Your task to perform on an android device: Go to Android settings Image 0: 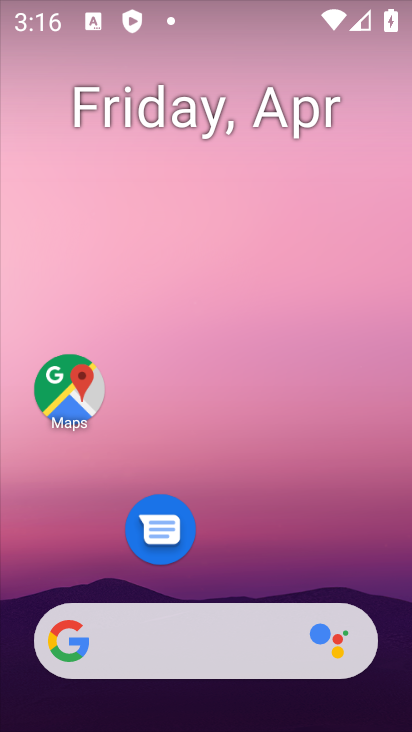
Step 0: drag from (259, 522) to (293, 283)
Your task to perform on an android device: Go to Android settings Image 1: 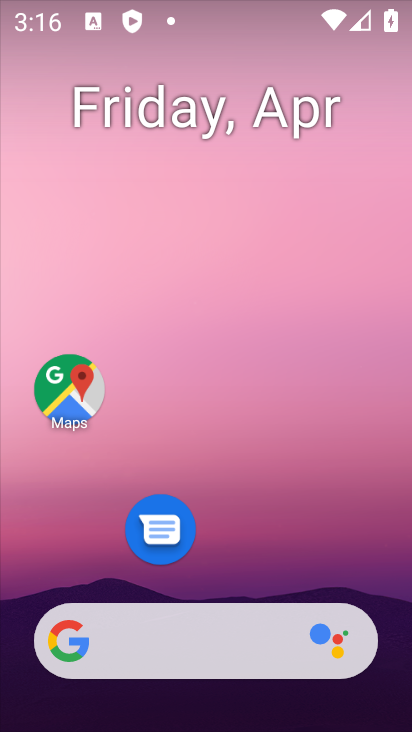
Step 1: drag from (255, 561) to (308, 189)
Your task to perform on an android device: Go to Android settings Image 2: 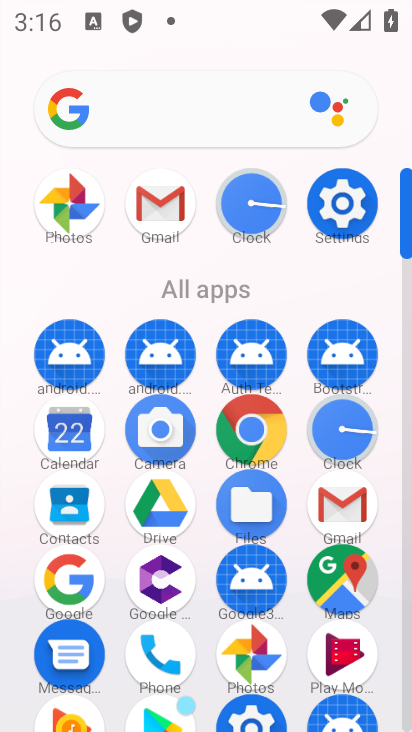
Step 2: click (344, 221)
Your task to perform on an android device: Go to Android settings Image 3: 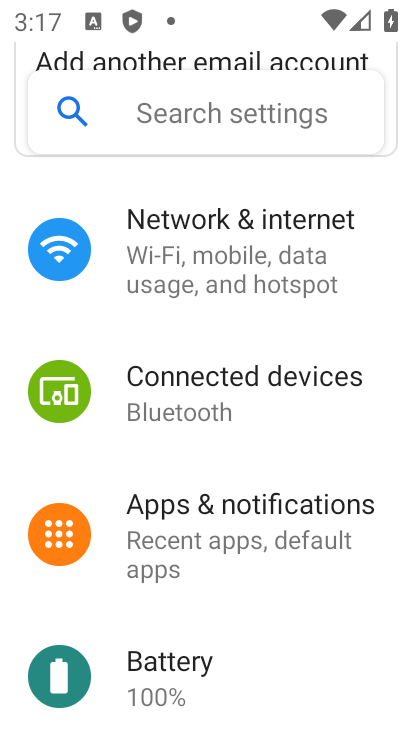
Step 3: drag from (231, 601) to (318, 213)
Your task to perform on an android device: Go to Android settings Image 4: 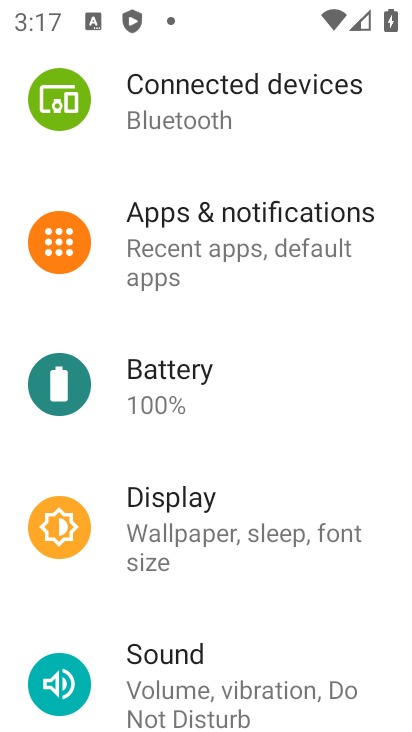
Step 4: drag from (243, 438) to (300, 249)
Your task to perform on an android device: Go to Android settings Image 5: 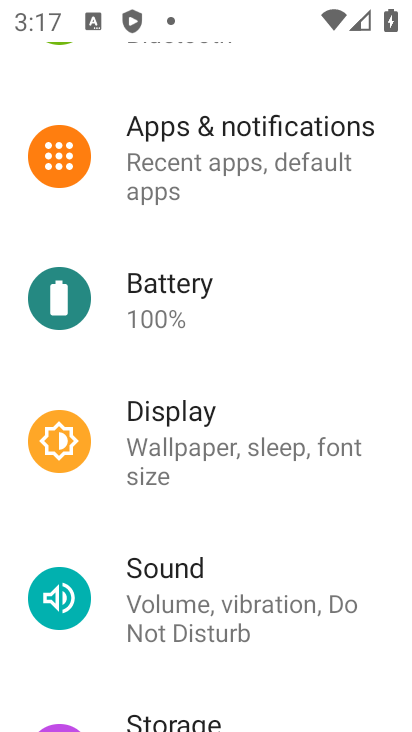
Step 5: drag from (192, 530) to (290, 194)
Your task to perform on an android device: Go to Android settings Image 6: 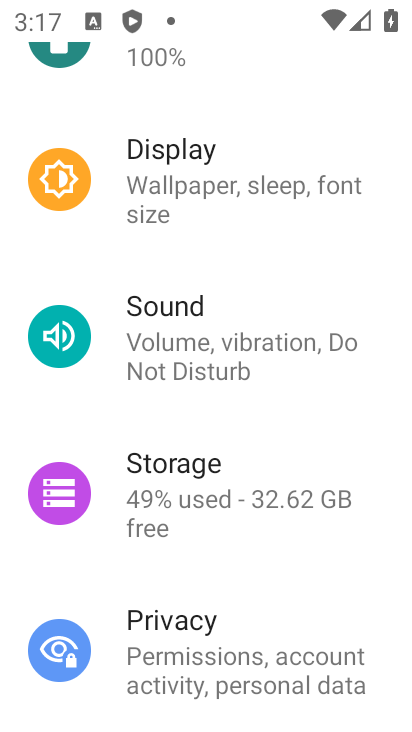
Step 6: drag from (192, 503) to (306, 104)
Your task to perform on an android device: Go to Android settings Image 7: 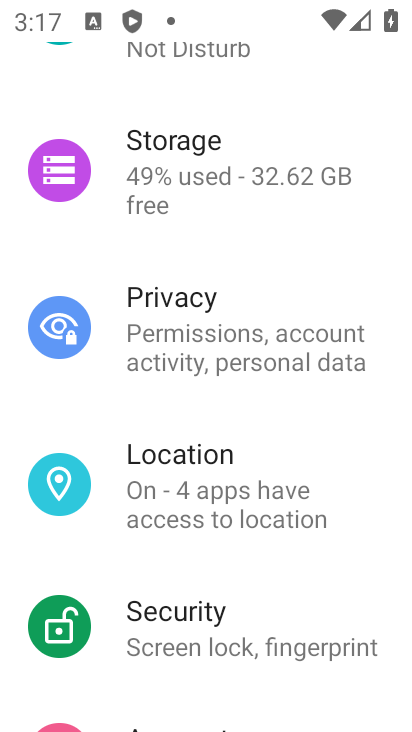
Step 7: drag from (222, 557) to (319, 187)
Your task to perform on an android device: Go to Android settings Image 8: 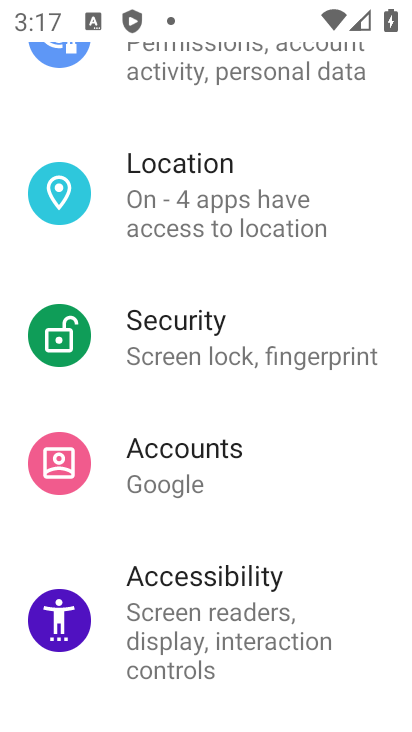
Step 8: drag from (251, 589) to (352, 173)
Your task to perform on an android device: Go to Android settings Image 9: 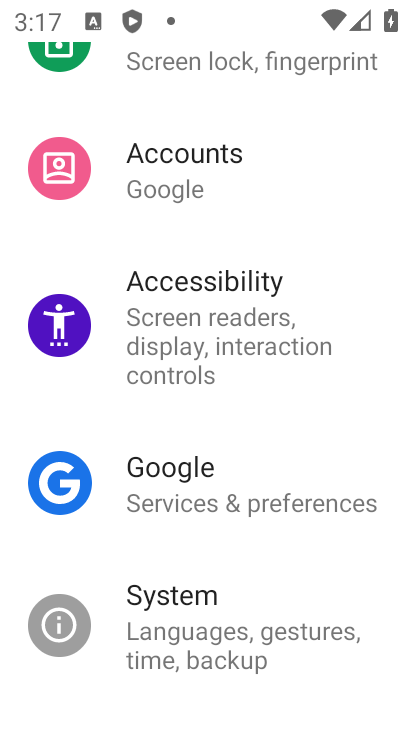
Step 9: drag from (303, 397) to (363, 186)
Your task to perform on an android device: Go to Android settings Image 10: 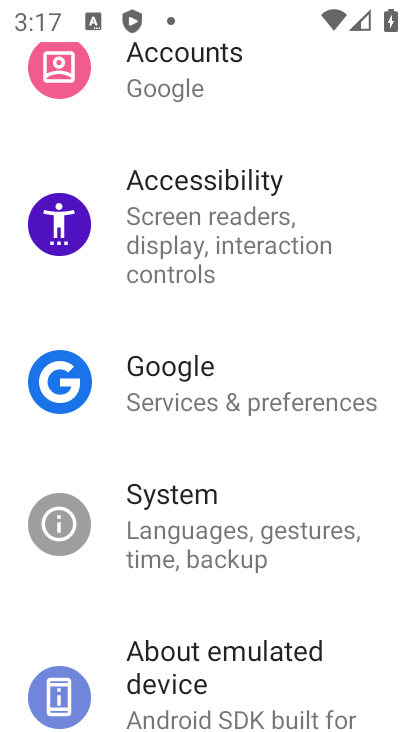
Step 10: drag from (274, 597) to (354, 183)
Your task to perform on an android device: Go to Android settings Image 11: 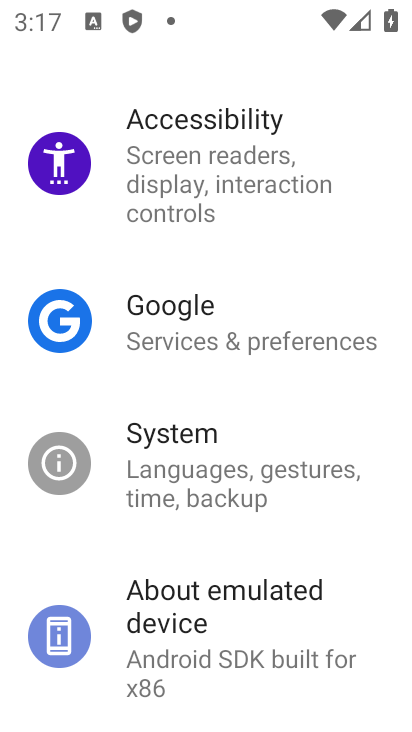
Step 11: click (219, 624)
Your task to perform on an android device: Go to Android settings Image 12: 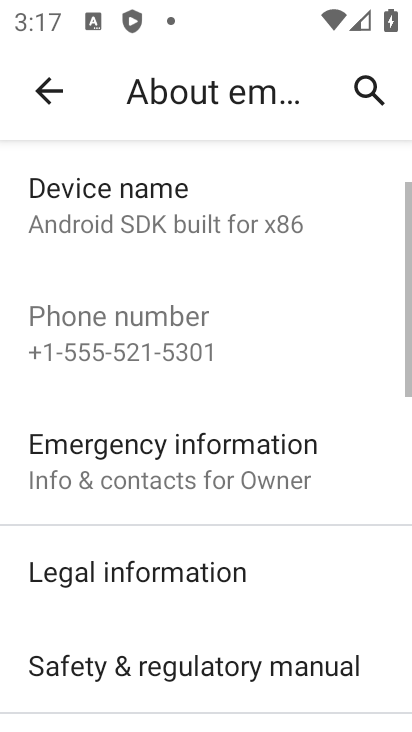
Step 12: drag from (231, 554) to (347, 75)
Your task to perform on an android device: Go to Android settings Image 13: 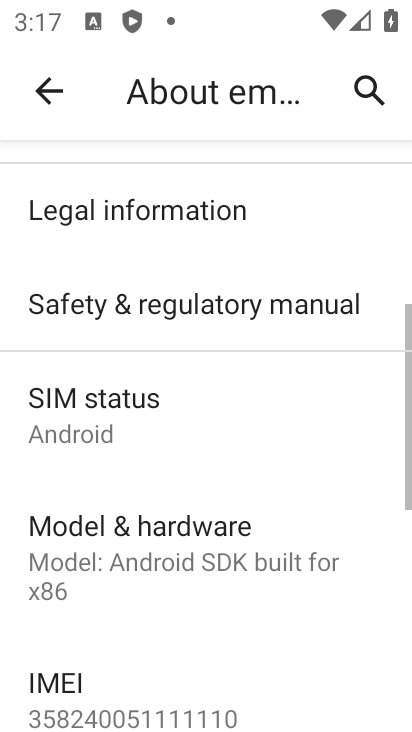
Step 13: drag from (179, 585) to (311, 85)
Your task to perform on an android device: Go to Android settings Image 14: 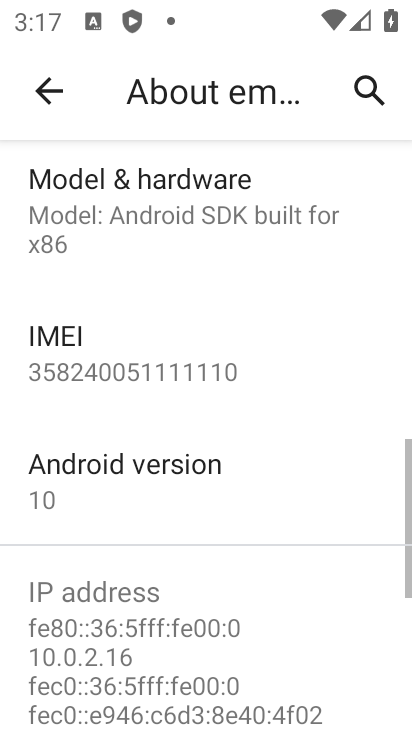
Step 14: click (230, 497)
Your task to perform on an android device: Go to Android settings Image 15: 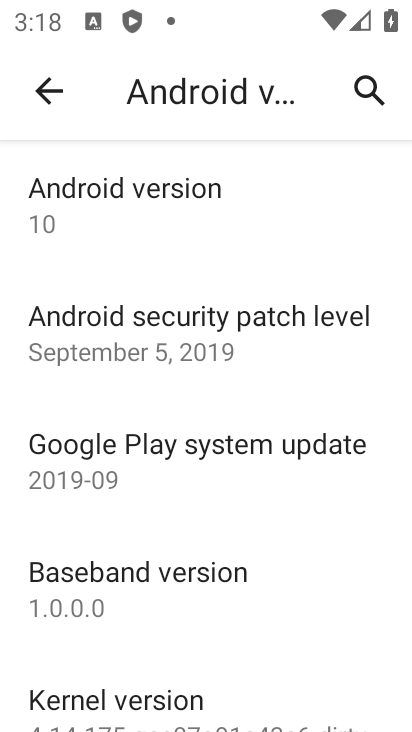
Step 15: task complete